Your task to perform on an android device: toggle data saver in the chrome app Image 0: 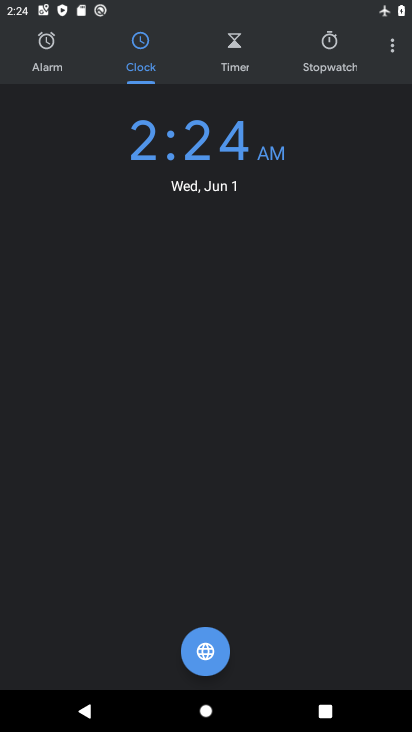
Step 0: press home button
Your task to perform on an android device: toggle data saver in the chrome app Image 1: 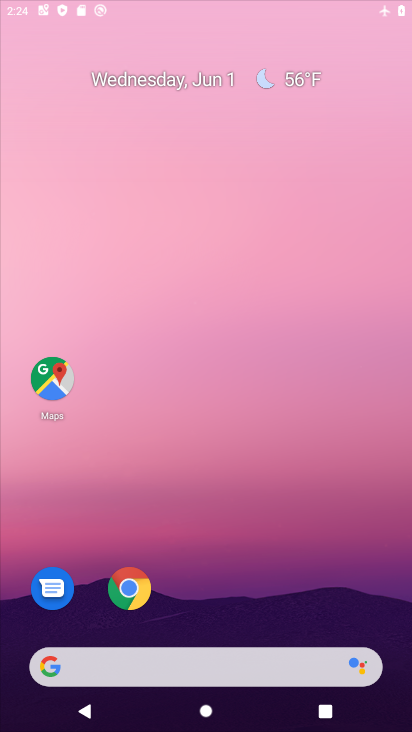
Step 1: drag from (236, 585) to (149, 0)
Your task to perform on an android device: toggle data saver in the chrome app Image 2: 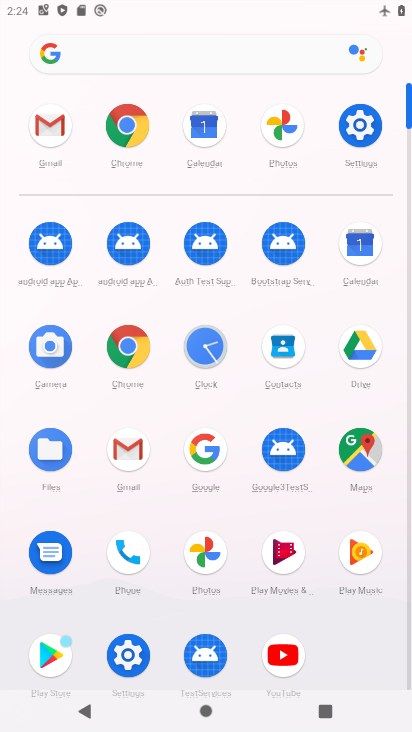
Step 2: click (129, 366)
Your task to perform on an android device: toggle data saver in the chrome app Image 3: 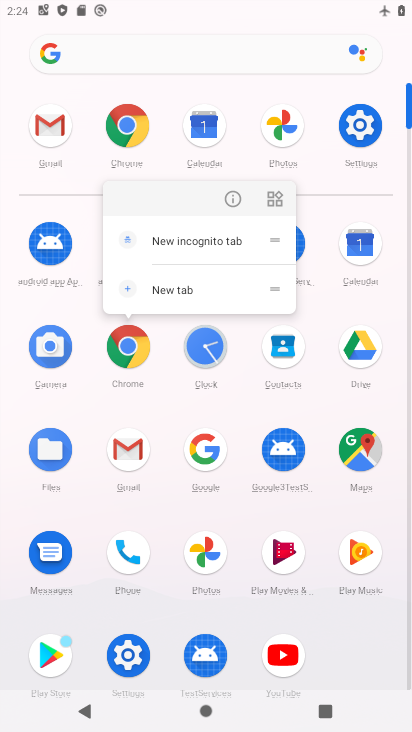
Step 3: click (111, 345)
Your task to perform on an android device: toggle data saver in the chrome app Image 4: 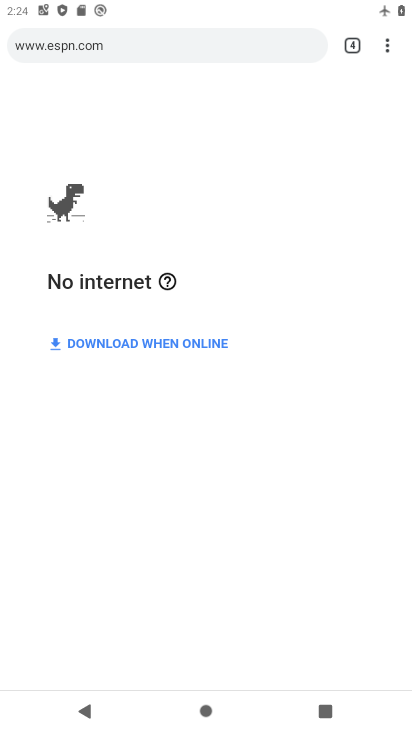
Step 4: click (383, 42)
Your task to perform on an android device: toggle data saver in the chrome app Image 5: 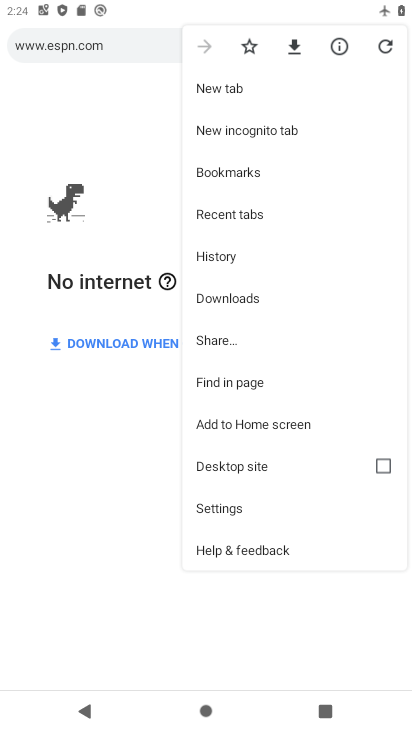
Step 5: click (248, 504)
Your task to perform on an android device: toggle data saver in the chrome app Image 6: 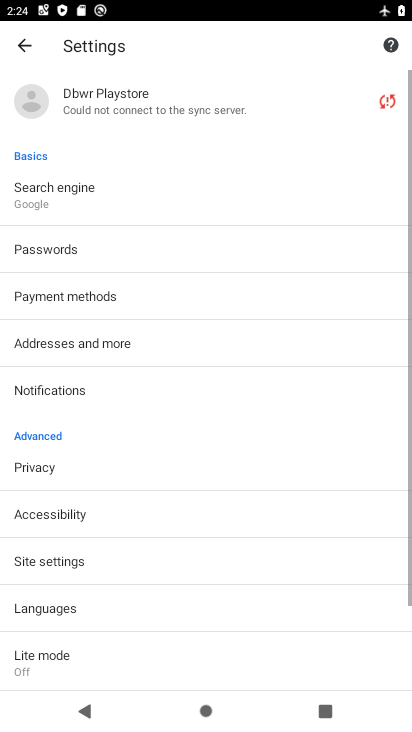
Step 6: drag from (193, 550) to (191, 373)
Your task to perform on an android device: toggle data saver in the chrome app Image 7: 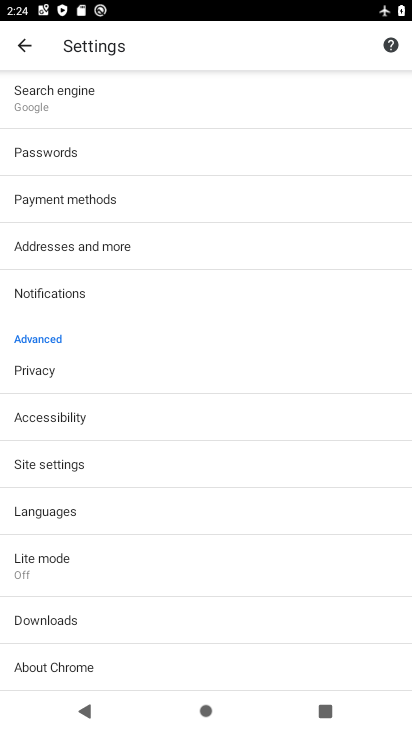
Step 7: click (109, 566)
Your task to perform on an android device: toggle data saver in the chrome app Image 8: 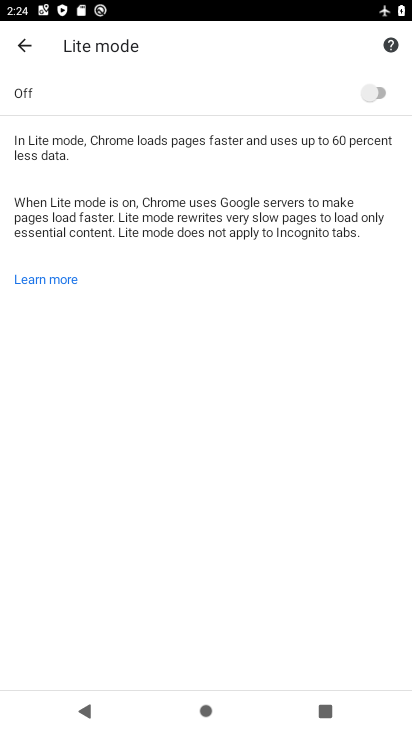
Step 8: click (363, 92)
Your task to perform on an android device: toggle data saver in the chrome app Image 9: 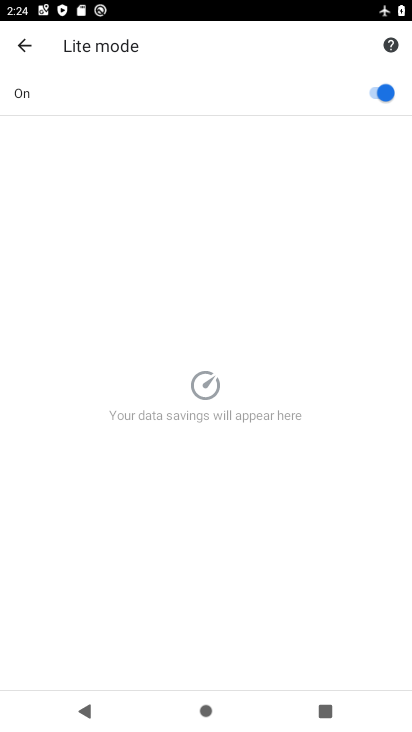
Step 9: task complete